Your task to perform on an android device: Go to display settings Image 0: 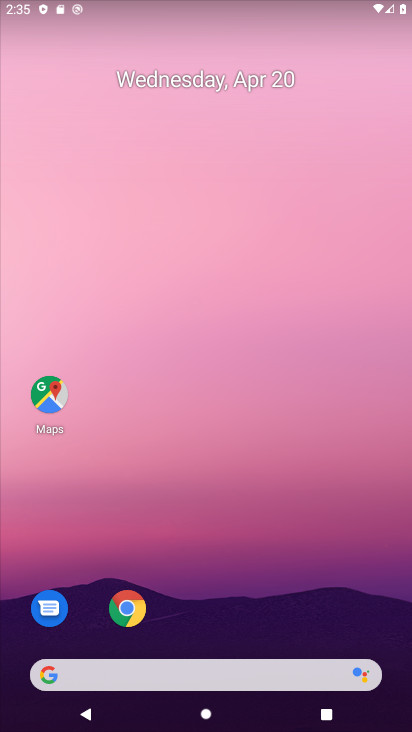
Step 0: drag from (116, 641) to (214, 238)
Your task to perform on an android device: Go to display settings Image 1: 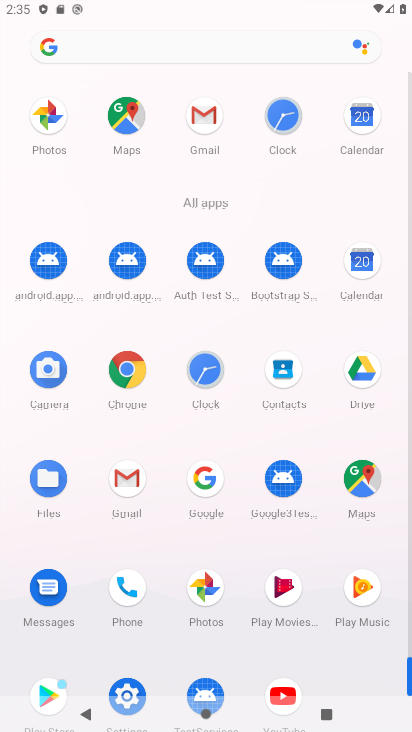
Step 1: drag from (189, 487) to (214, 376)
Your task to perform on an android device: Go to display settings Image 2: 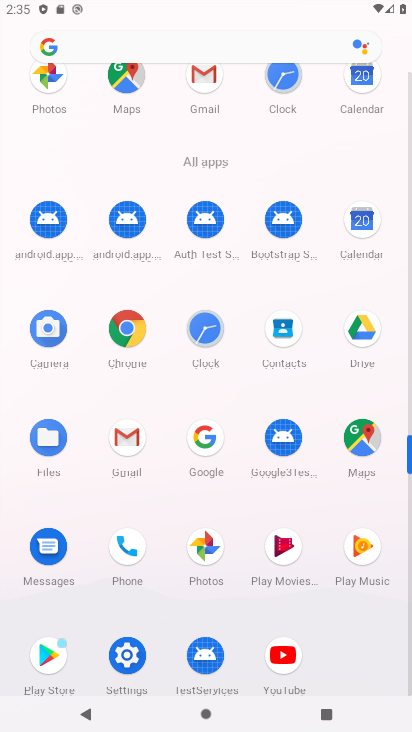
Step 2: click (133, 653)
Your task to perform on an android device: Go to display settings Image 3: 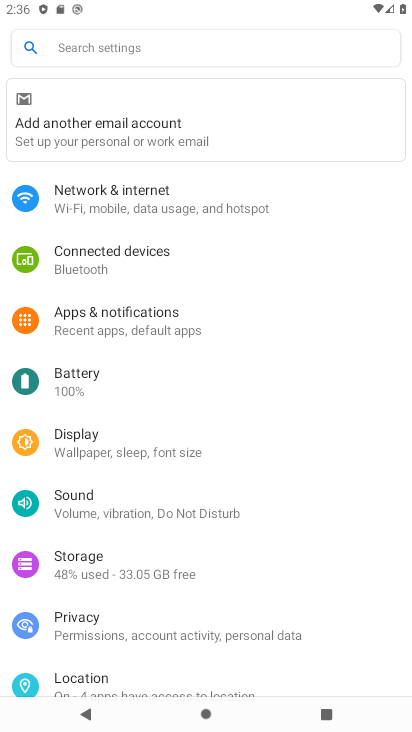
Step 3: click (98, 444)
Your task to perform on an android device: Go to display settings Image 4: 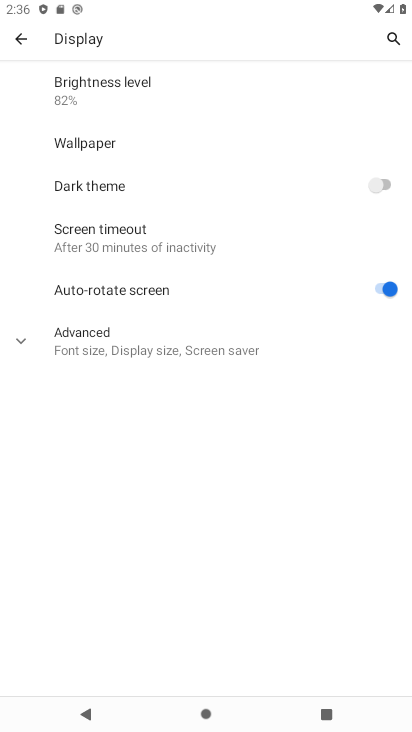
Step 4: task complete